Your task to perform on an android device: Go to Yahoo.com Image 0: 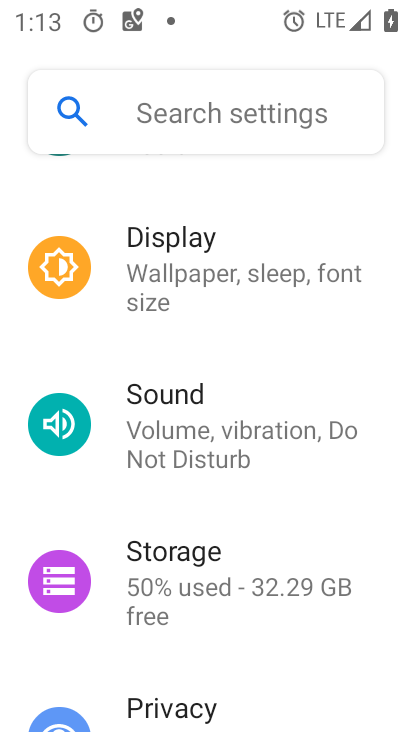
Step 0: press home button
Your task to perform on an android device: Go to Yahoo.com Image 1: 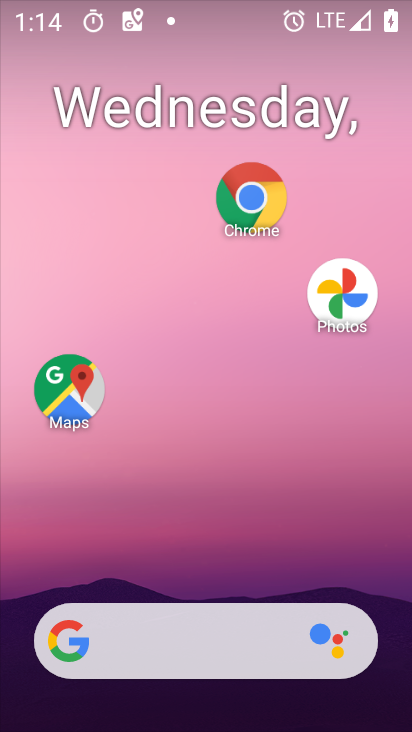
Step 1: click (239, 205)
Your task to perform on an android device: Go to Yahoo.com Image 2: 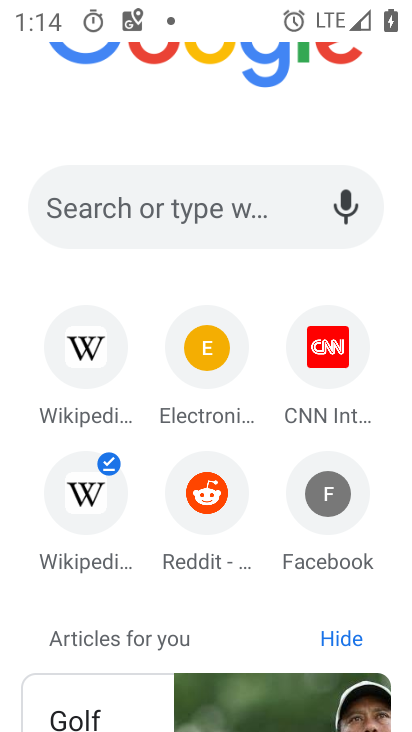
Step 2: click (206, 219)
Your task to perform on an android device: Go to Yahoo.com Image 3: 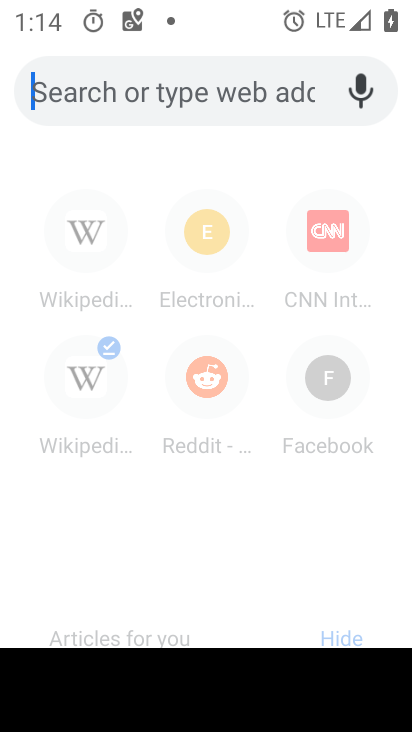
Step 3: type "yahoo"
Your task to perform on an android device: Go to Yahoo.com Image 4: 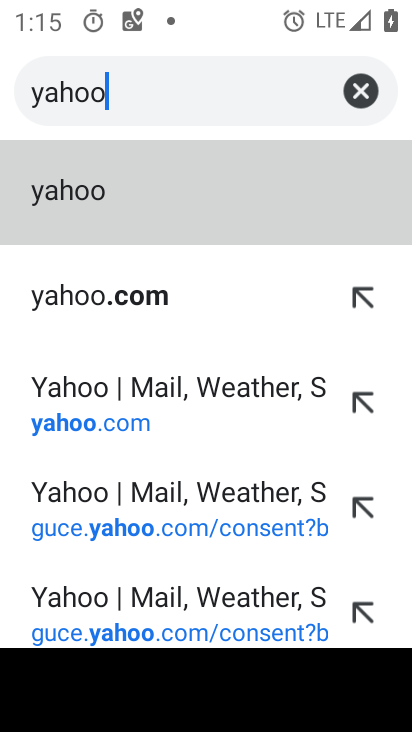
Step 4: click (238, 427)
Your task to perform on an android device: Go to Yahoo.com Image 5: 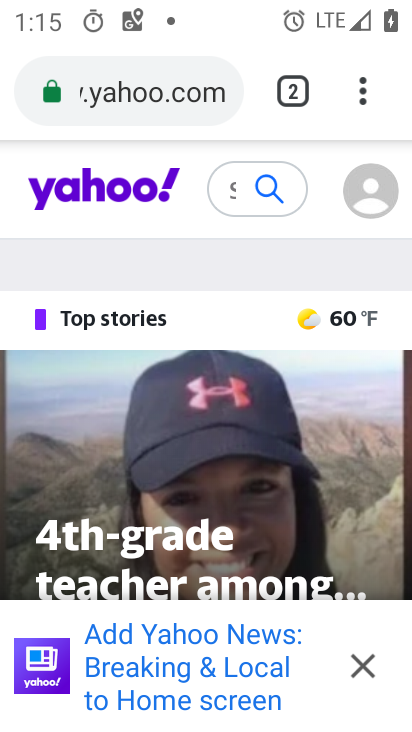
Step 5: task complete